Your task to perform on an android device: Go to wifi settings Image 0: 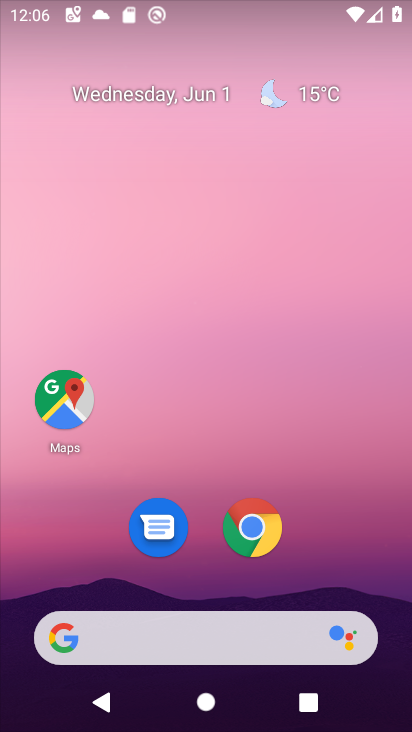
Step 0: drag from (358, 536) to (357, 11)
Your task to perform on an android device: Go to wifi settings Image 1: 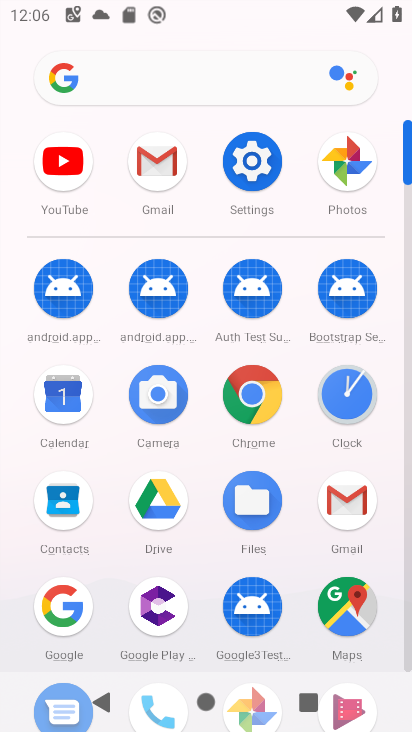
Step 1: click (247, 168)
Your task to perform on an android device: Go to wifi settings Image 2: 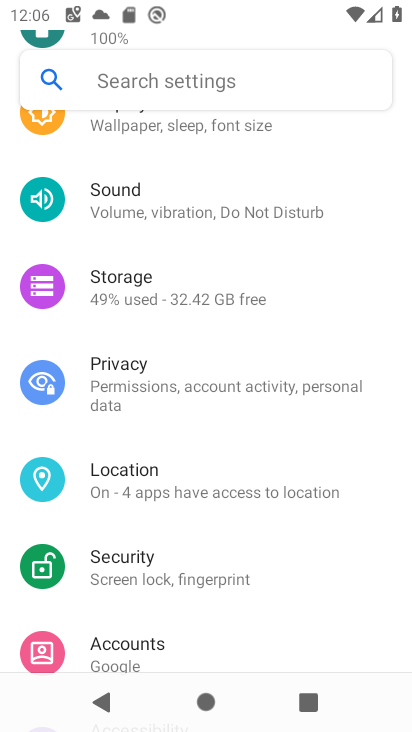
Step 2: drag from (348, 350) to (336, 525)
Your task to perform on an android device: Go to wifi settings Image 3: 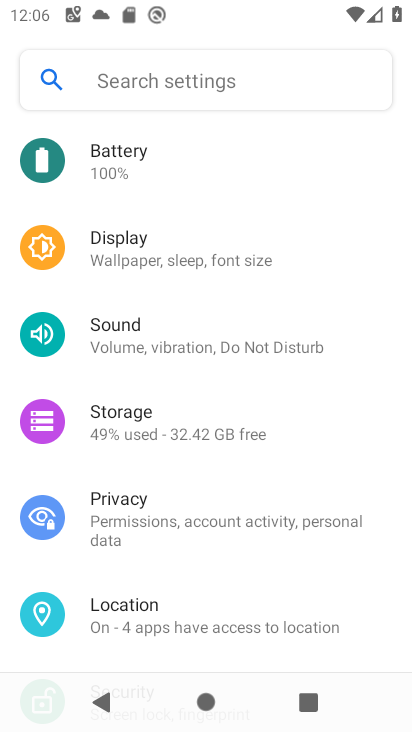
Step 3: drag from (266, 301) to (278, 538)
Your task to perform on an android device: Go to wifi settings Image 4: 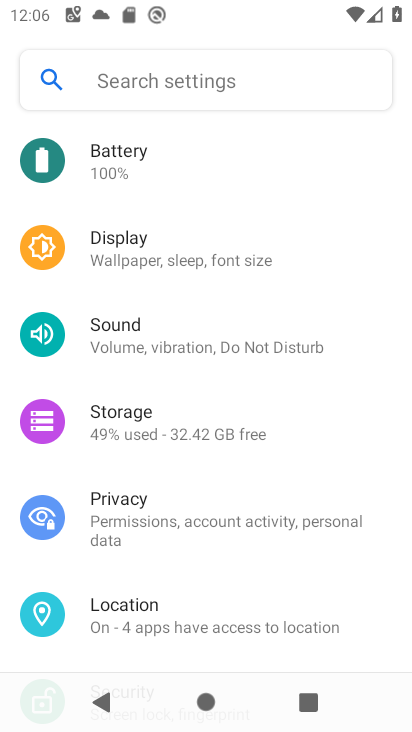
Step 4: drag from (340, 184) to (356, 601)
Your task to perform on an android device: Go to wifi settings Image 5: 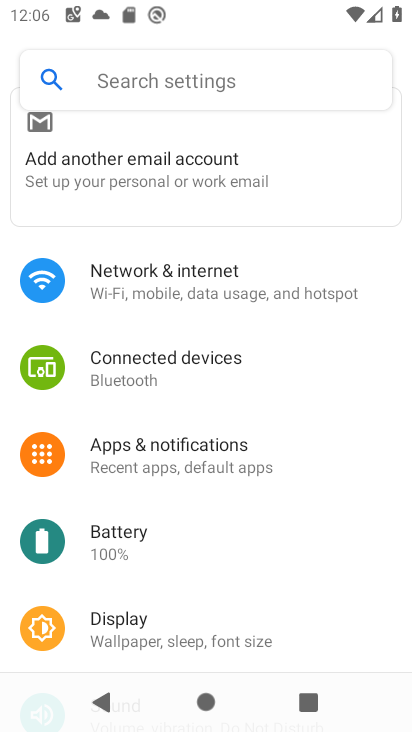
Step 5: click (186, 295)
Your task to perform on an android device: Go to wifi settings Image 6: 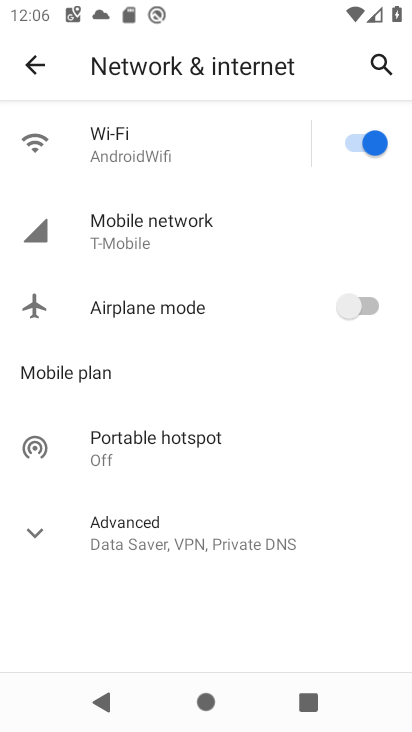
Step 6: click (108, 151)
Your task to perform on an android device: Go to wifi settings Image 7: 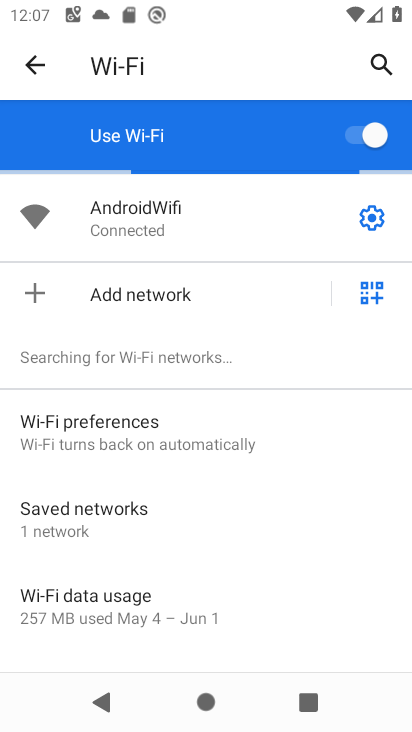
Step 7: task complete